Your task to perform on an android device: Is it going to rain tomorrow? Image 0: 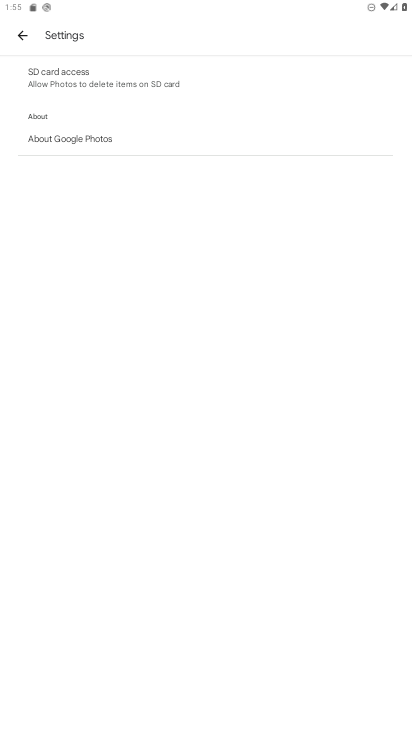
Step 0: press home button
Your task to perform on an android device: Is it going to rain tomorrow? Image 1: 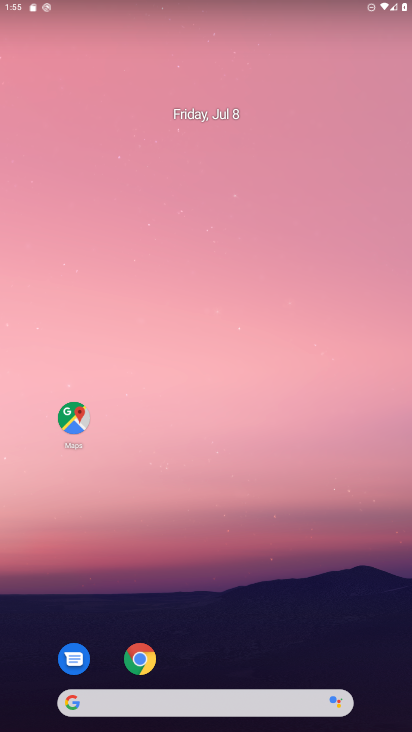
Step 1: drag from (231, 654) to (193, 207)
Your task to perform on an android device: Is it going to rain tomorrow? Image 2: 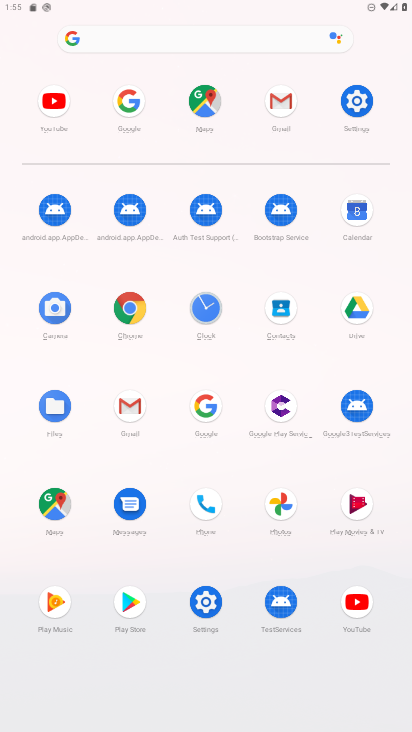
Step 2: click (127, 100)
Your task to perform on an android device: Is it going to rain tomorrow? Image 3: 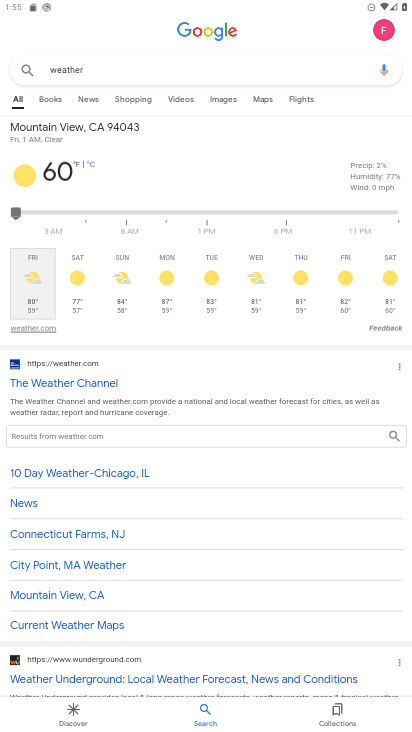
Step 3: click (189, 74)
Your task to perform on an android device: Is it going to rain tomorrow? Image 4: 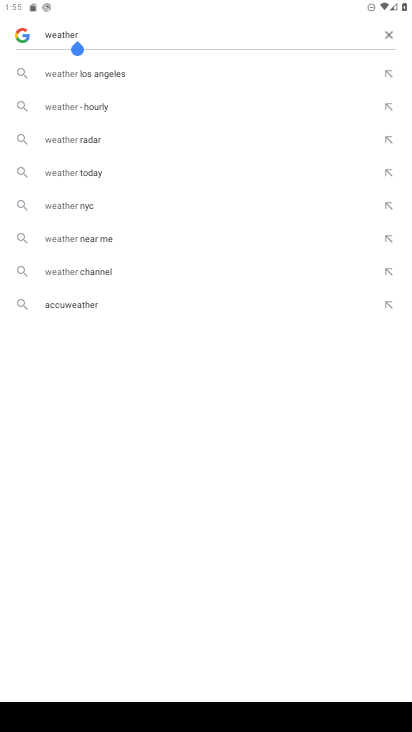
Step 4: click (391, 29)
Your task to perform on an android device: Is it going to rain tomorrow? Image 5: 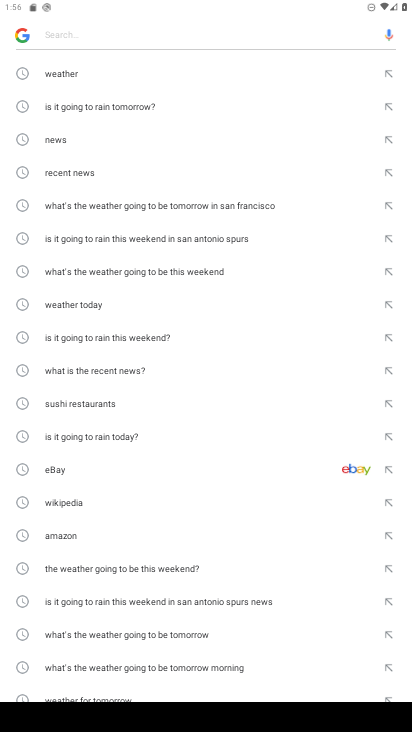
Step 5: click (138, 106)
Your task to perform on an android device: Is it going to rain tomorrow? Image 6: 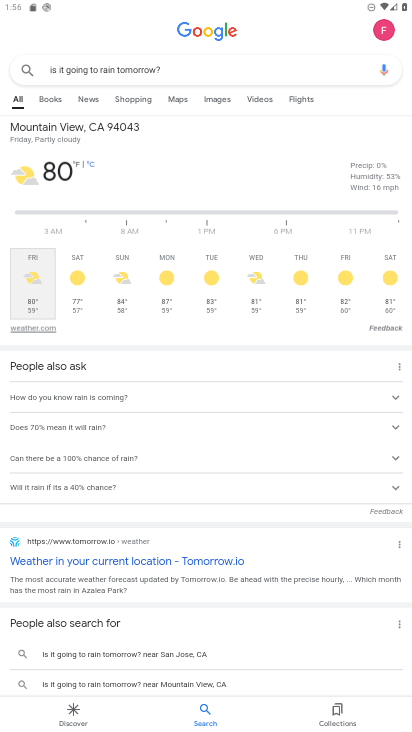
Step 6: task complete